Your task to perform on an android device: turn on bluetooth scan Image 0: 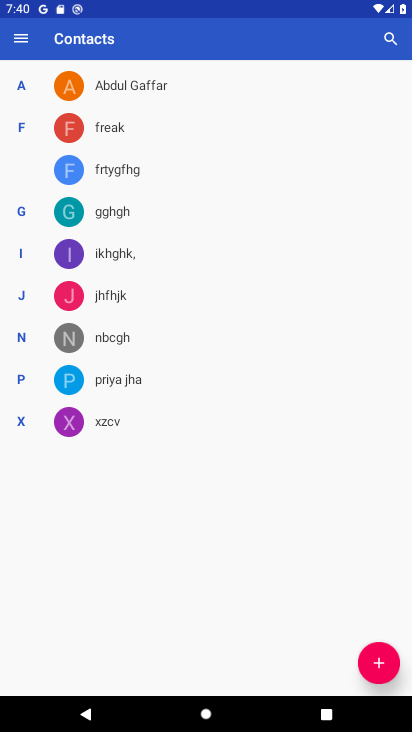
Step 0: press home button
Your task to perform on an android device: turn on bluetooth scan Image 1: 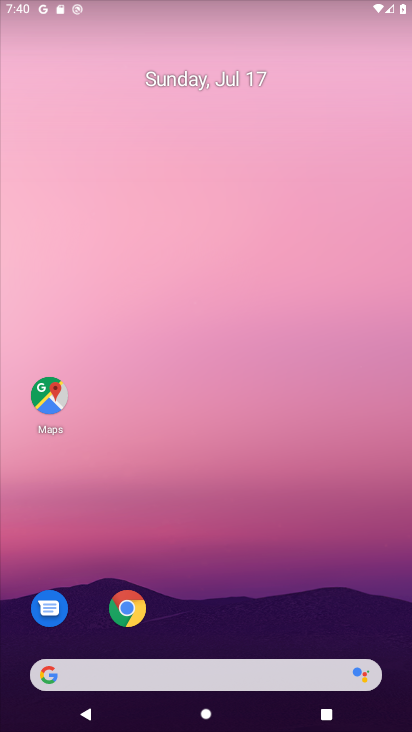
Step 1: drag from (248, 643) to (284, 348)
Your task to perform on an android device: turn on bluetooth scan Image 2: 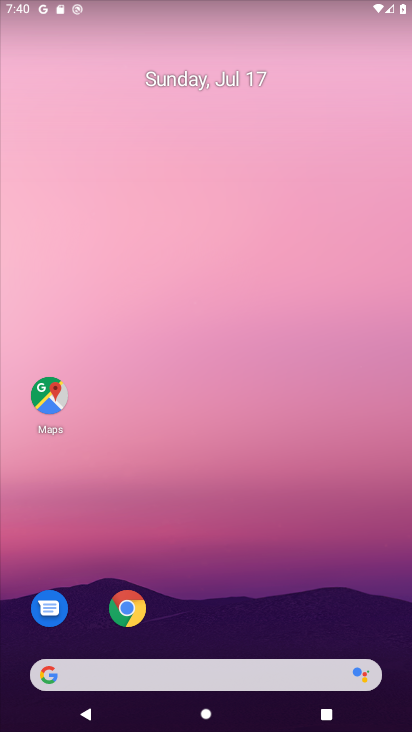
Step 2: drag from (145, 535) to (165, 161)
Your task to perform on an android device: turn on bluetooth scan Image 3: 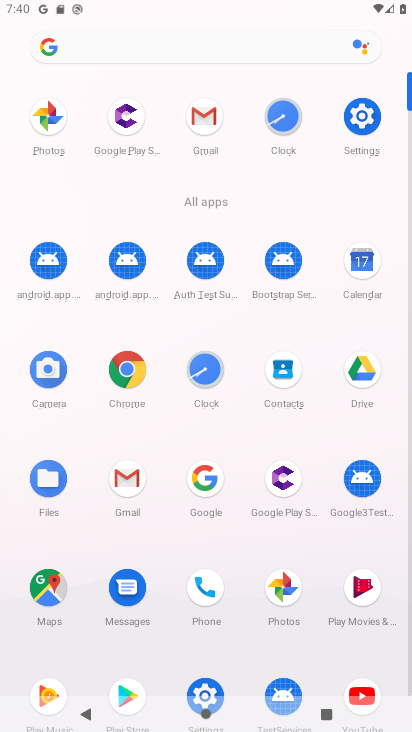
Step 3: click (343, 117)
Your task to perform on an android device: turn on bluetooth scan Image 4: 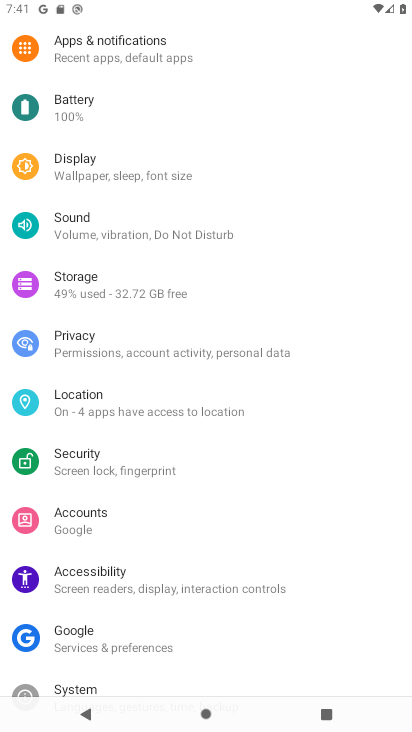
Step 4: click (97, 397)
Your task to perform on an android device: turn on bluetooth scan Image 5: 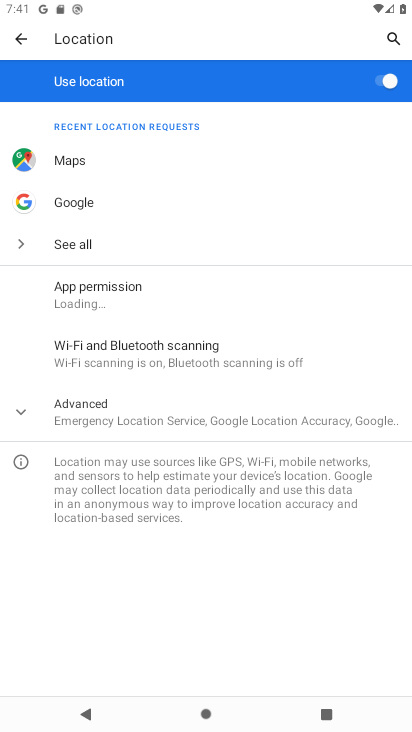
Step 5: click (142, 356)
Your task to perform on an android device: turn on bluetooth scan Image 6: 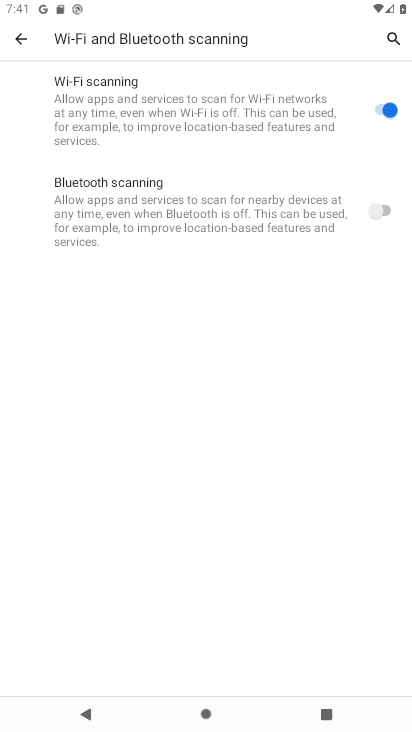
Step 6: click (377, 202)
Your task to perform on an android device: turn on bluetooth scan Image 7: 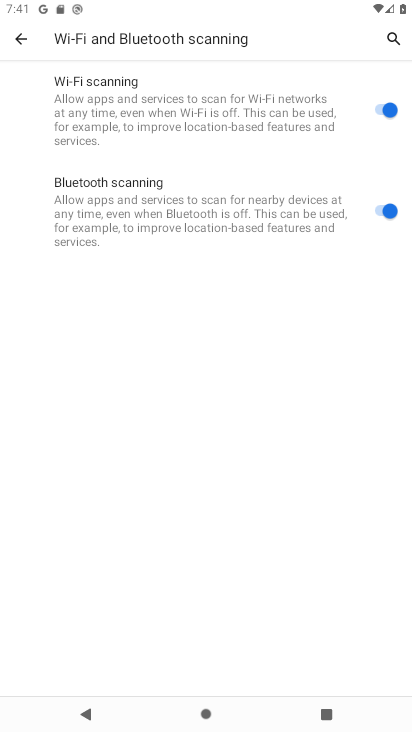
Step 7: task complete